Your task to perform on an android device: clear all cookies in the chrome app Image 0: 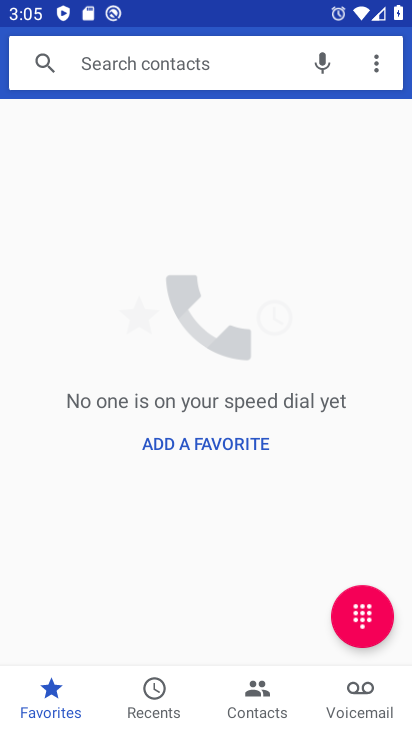
Step 0: press home button
Your task to perform on an android device: clear all cookies in the chrome app Image 1: 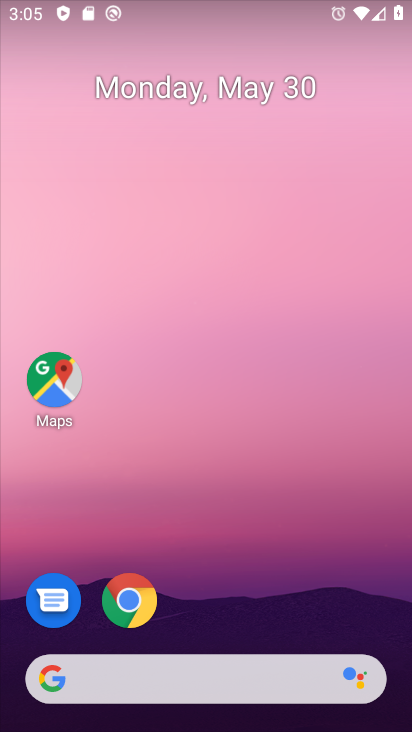
Step 1: click (133, 608)
Your task to perform on an android device: clear all cookies in the chrome app Image 2: 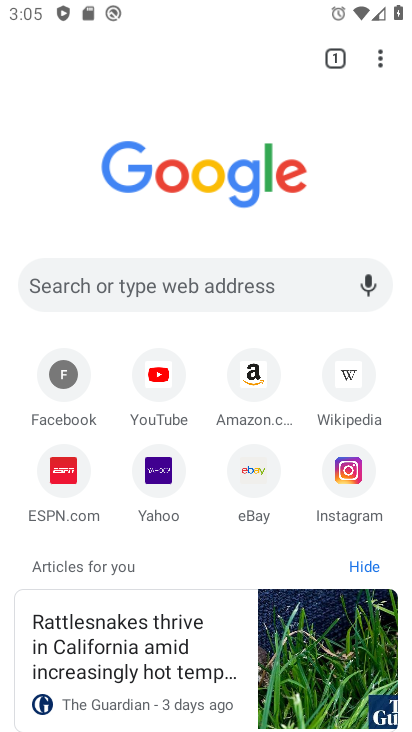
Step 2: click (381, 63)
Your task to perform on an android device: clear all cookies in the chrome app Image 3: 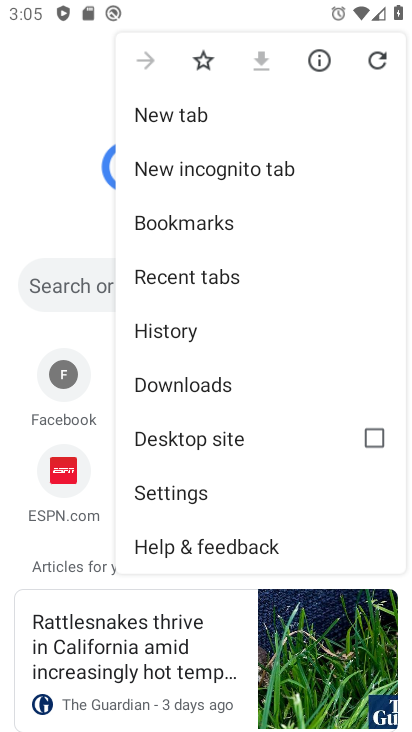
Step 3: click (159, 497)
Your task to perform on an android device: clear all cookies in the chrome app Image 4: 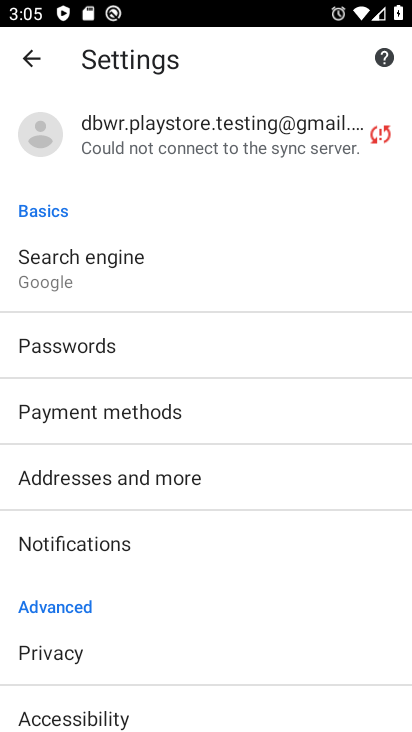
Step 4: click (42, 657)
Your task to perform on an android device: clear all cookies in the chrome app Image 5: 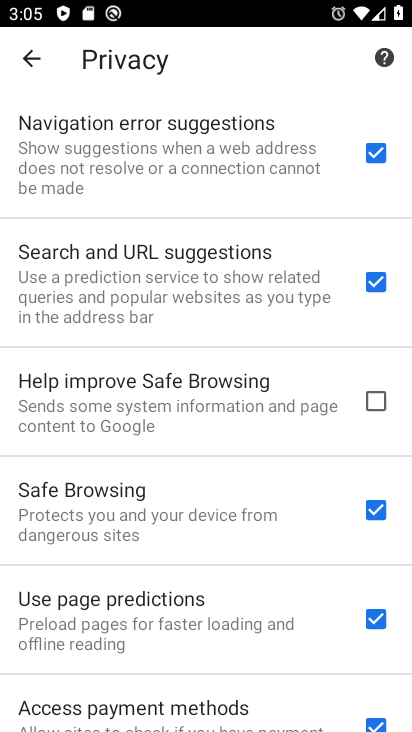
Step 5: drag from (134, 690) to (151, 130)
Your task to perform on an android device: clear all cookies in the chrome app Image 6: 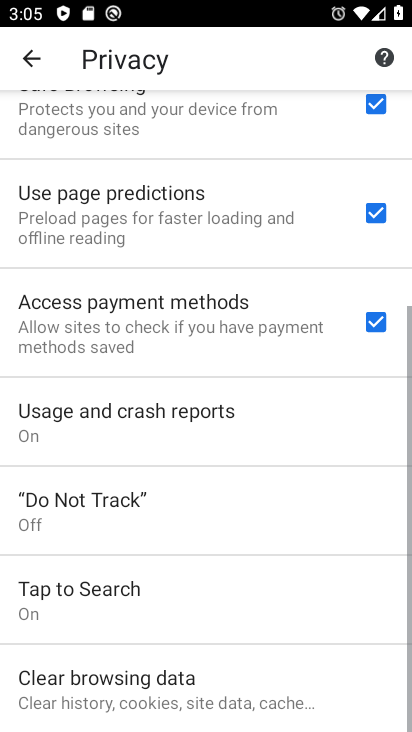
Step 6: drag from (137, 660) to (137, 237)
Your task to perform on an android device: clear all cookies in the chrome app Image 7: 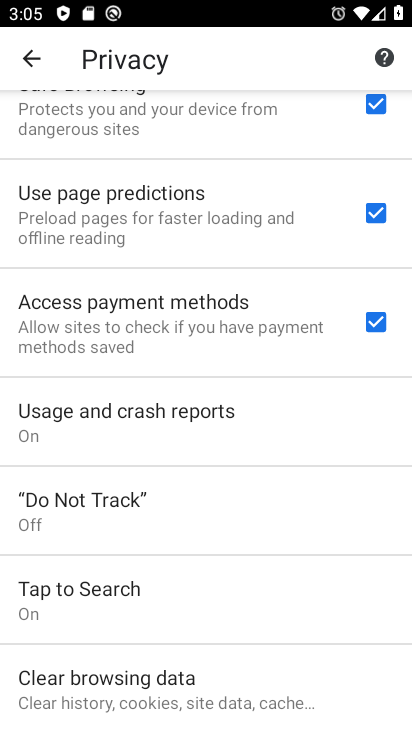
Step 7: click (127, 688)
Your task to perform on an android device: clear all cookies in the chrome app Image 8: 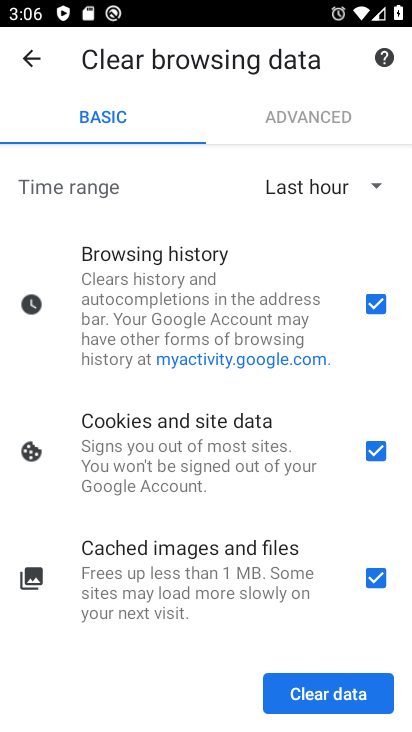
Step 8: click (373, 296)
Your task to perform on an android device: clear all cookies in the chrome app Image 9: 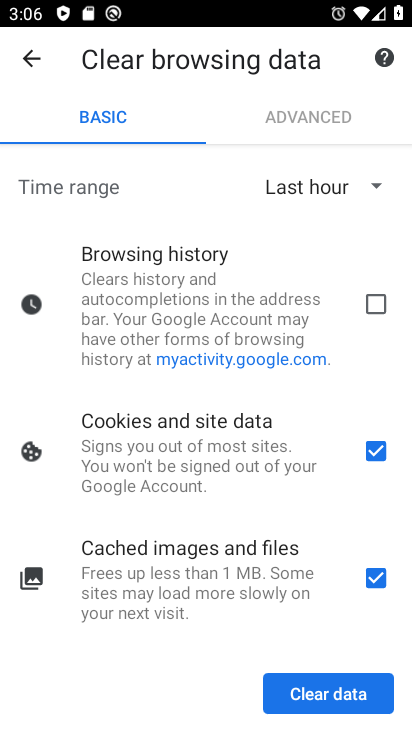
Step 9: click (375, 582)
Your task to perform on an android device: clear all cookies in the chrome app Image 10: 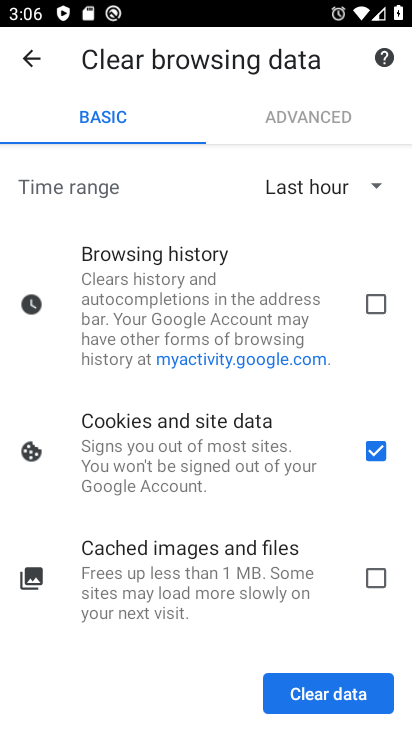
Step 10: click (330, 695)
Your task to perform on an android device: clear all cookies in the chrome app Image 11: 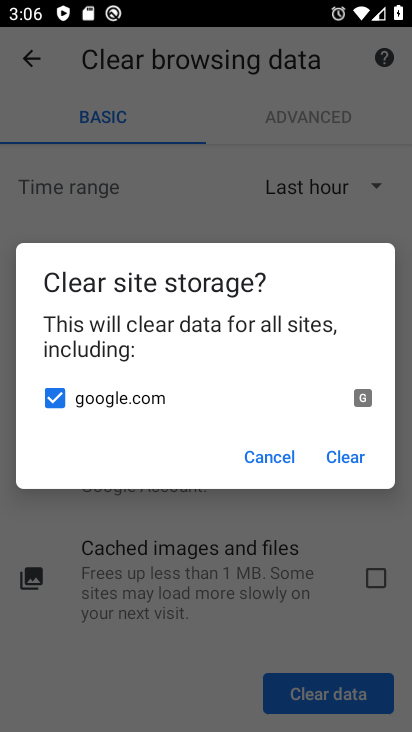
Step 11: click (343, 457)
Your task to perform on an android device: clear all cookies in the chrome app Image 12: 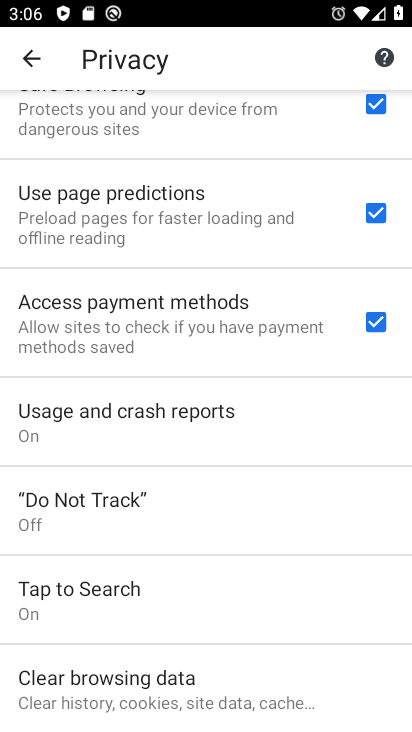
Step 12: task complete